Your task to perform on an android device: empty trash in the gmail app Image 0: 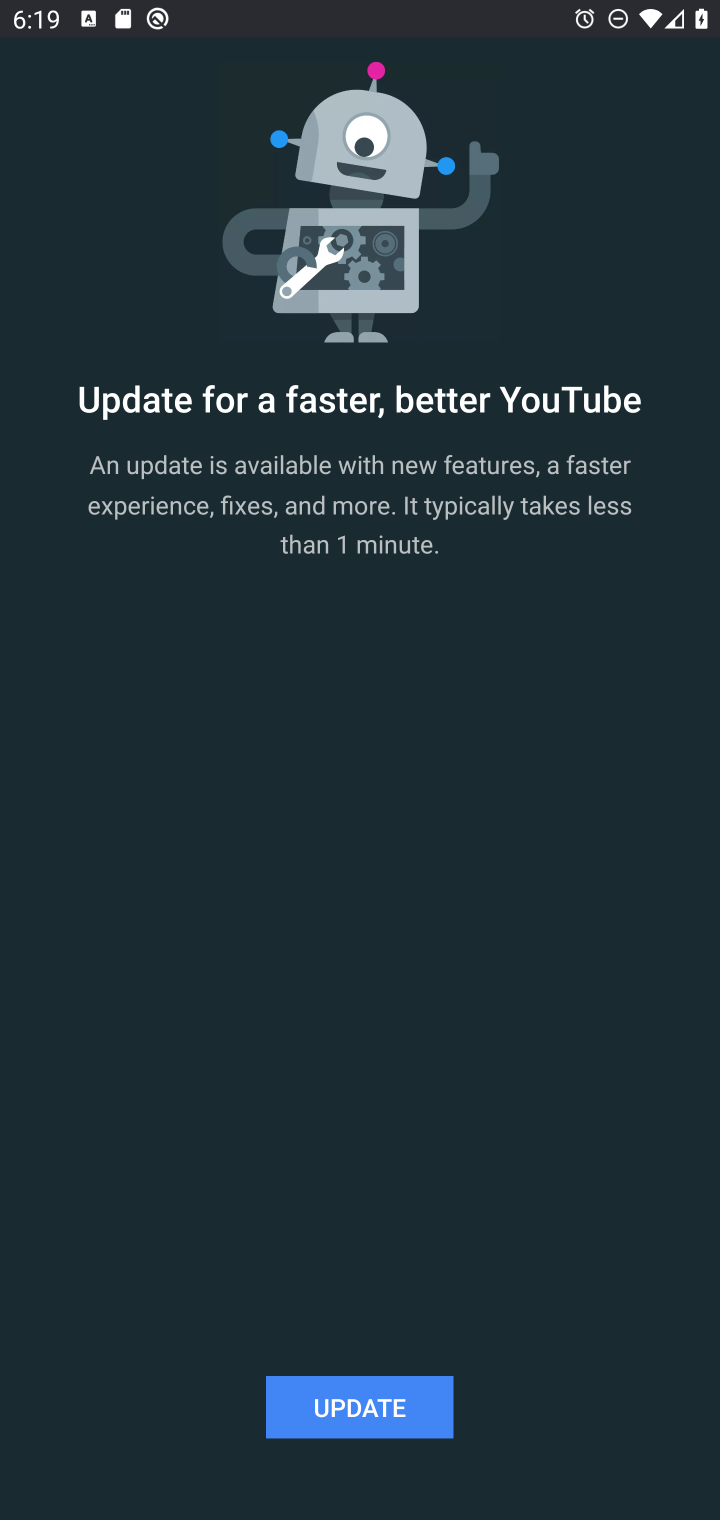
Step 0: press home button
Your task to perform on an android device: empty trash in the gmail app Image 1: 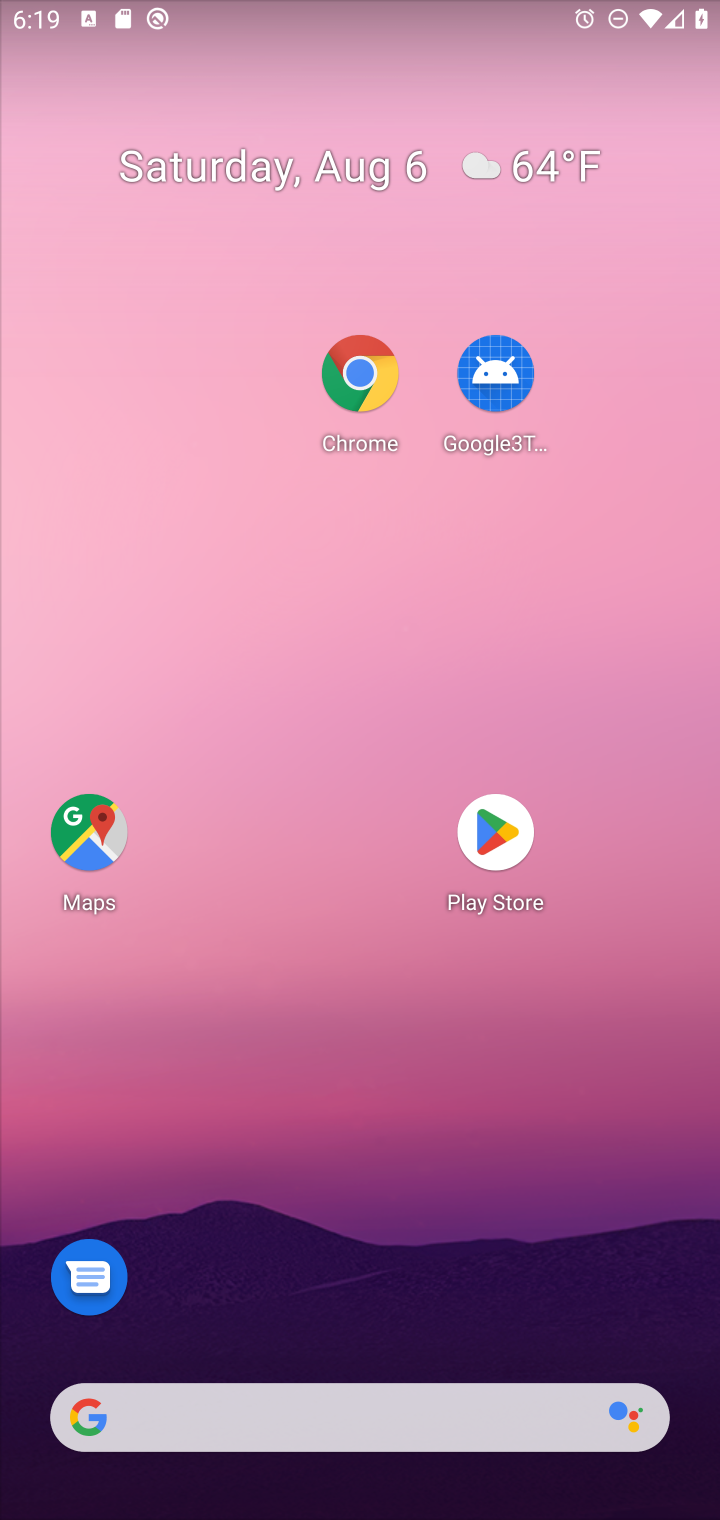
Step 1: drag from (395, 1410) to (540, 1022)
Your task to perform on an android device: empty trash in the gmail app Image 2: 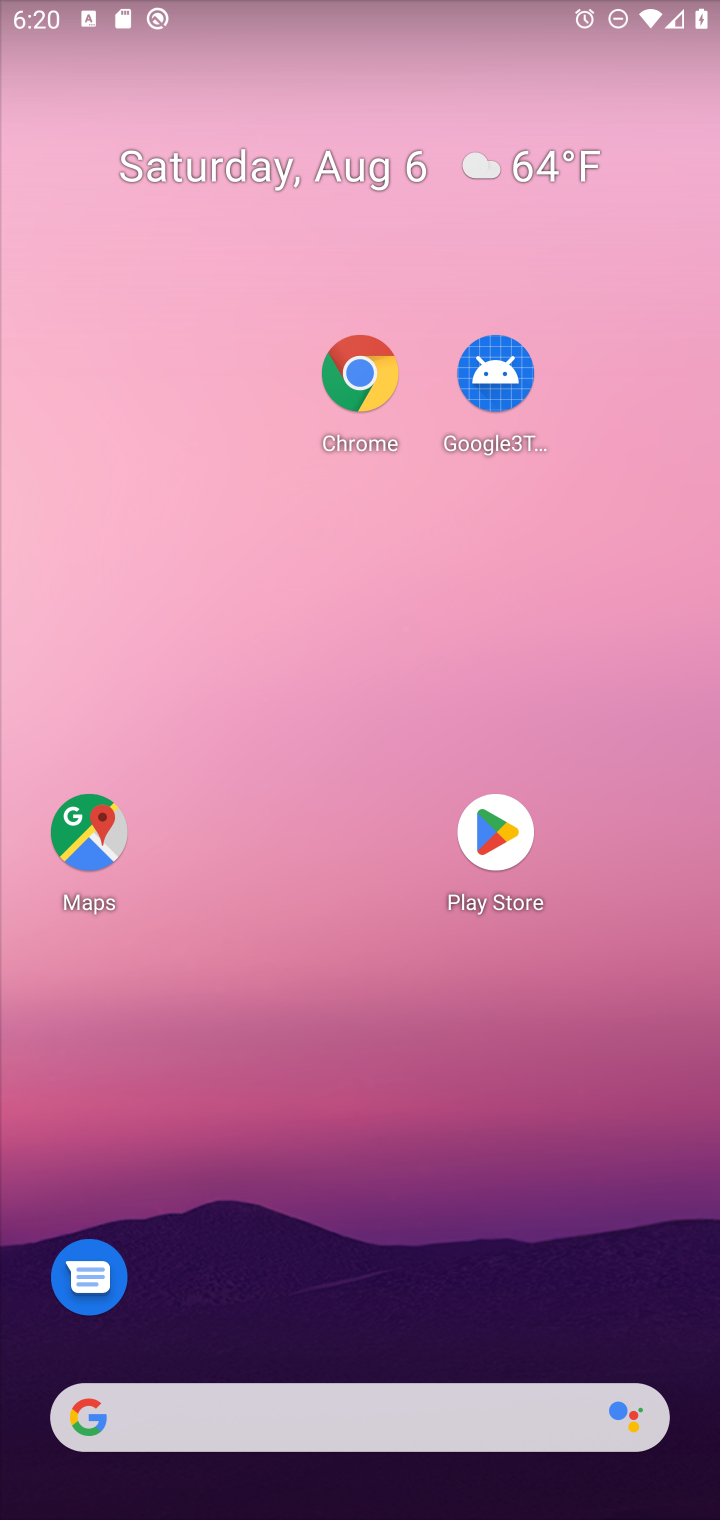
Step 2: drag from (319, 1434) to (61, 15)
Your task to perform on an android device: empty trash in the gmail app Image 3: 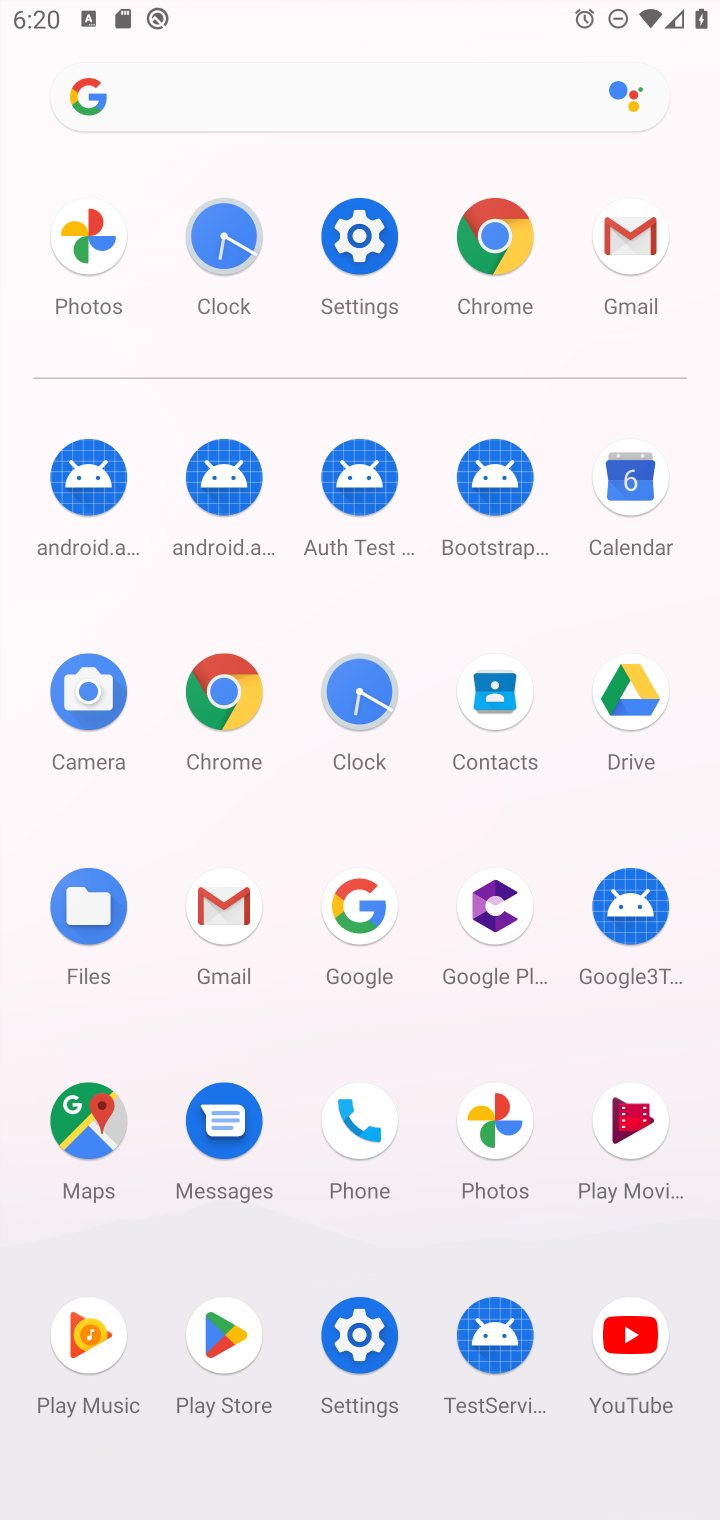
Step 3: click (615, 246)
Your task to perform on an android device: empty trash in the gmail app Image 4: 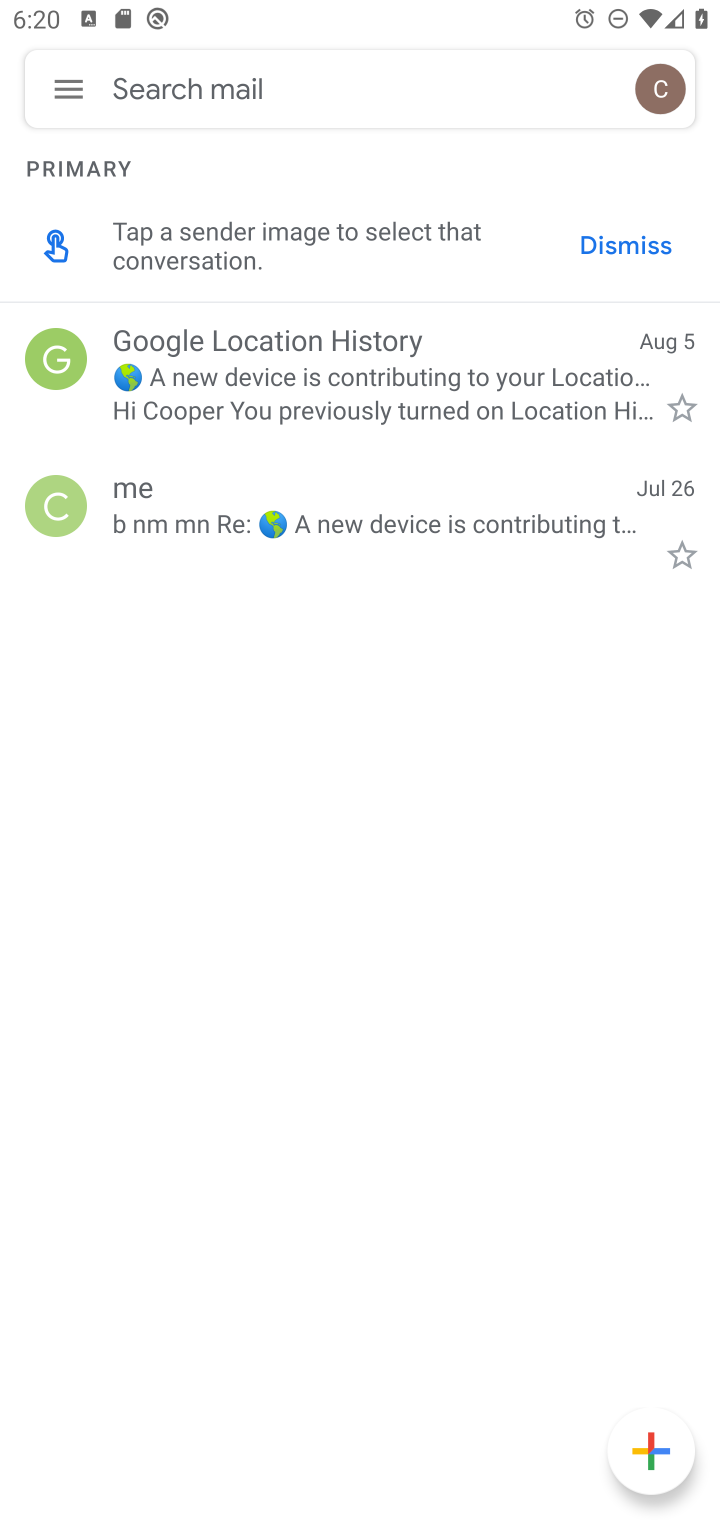
Step 4: click (77, 93)
Your task to perform on an android device: empty trash in the gmail app Image 5: 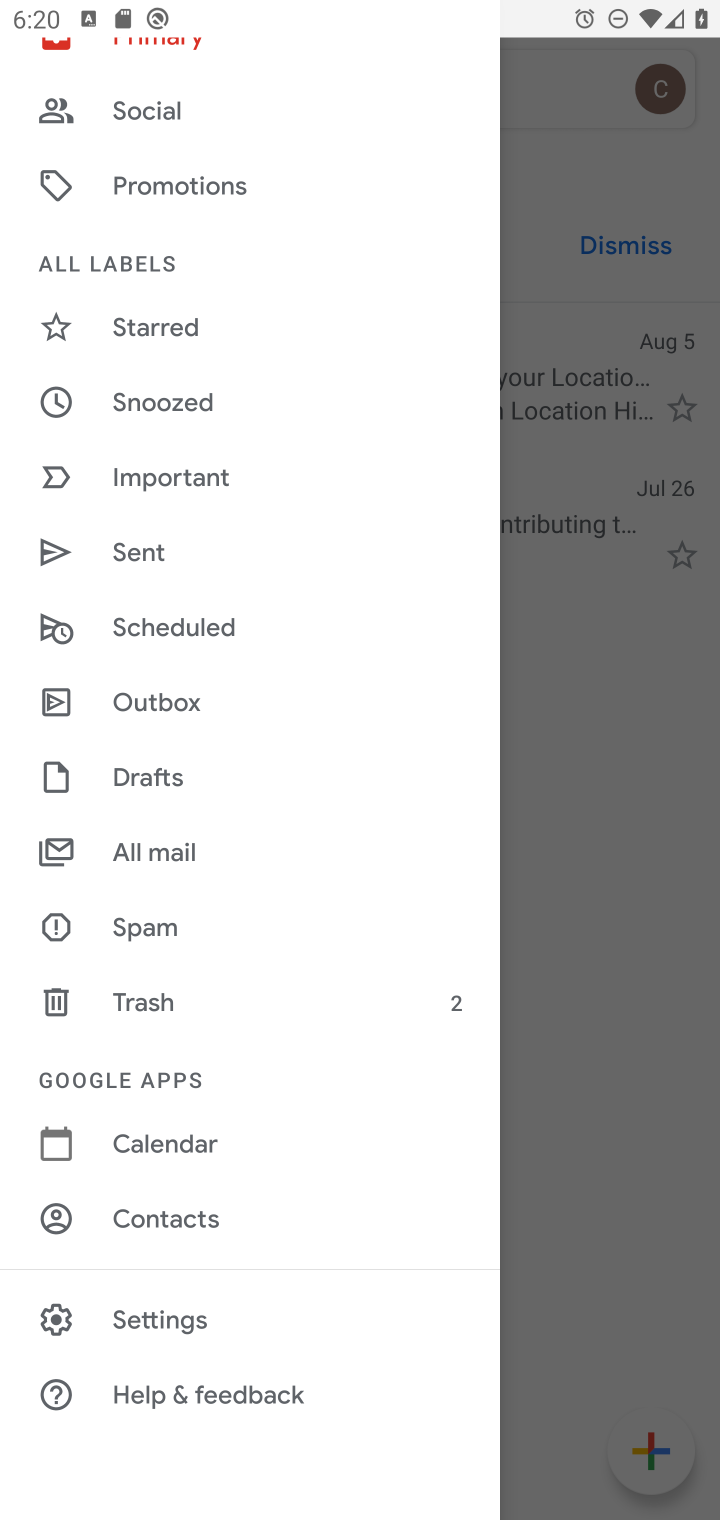
Step 5: click (151, 994)
Your task to perform on an android device: empty trash in the gmail app Image 6: 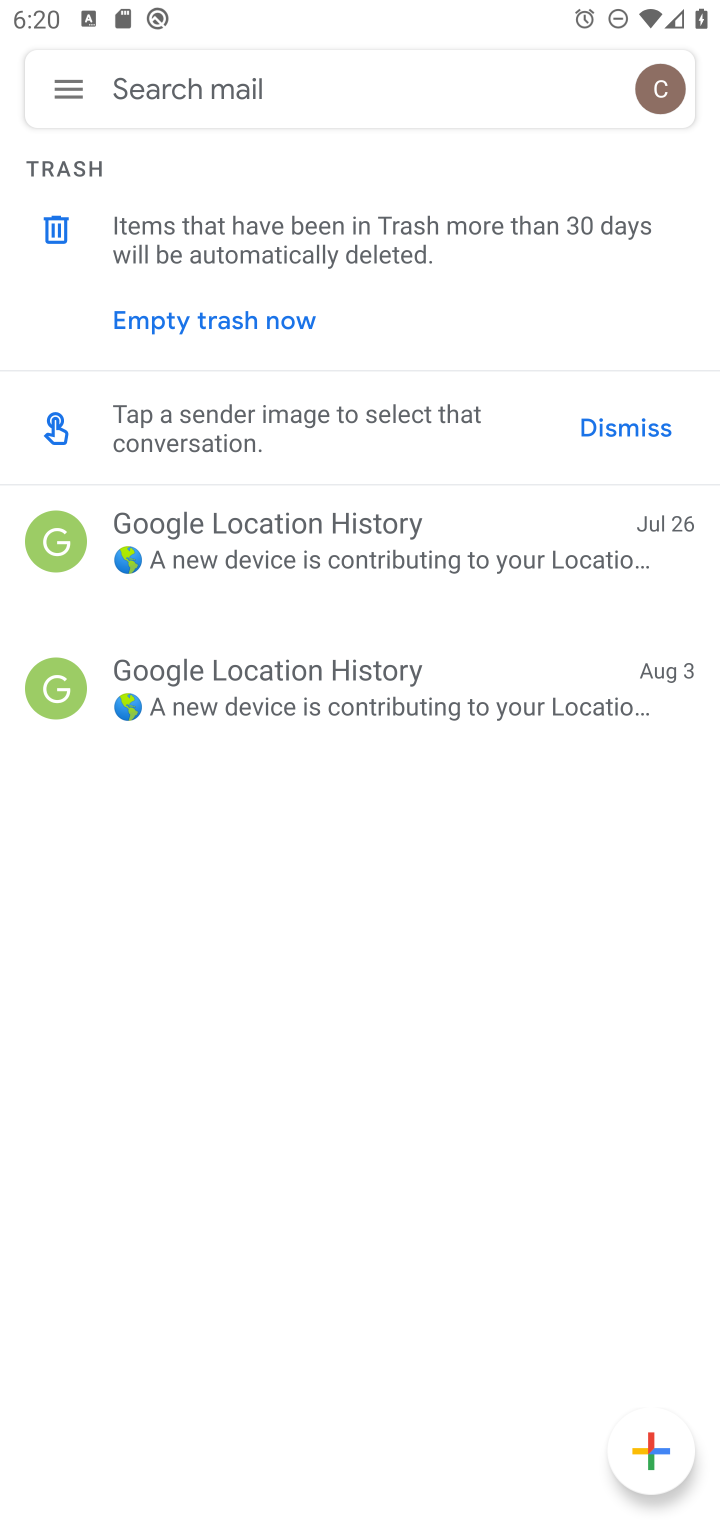
Step 6: task complete